Your task to perform on an android device: delete a single message in the gmail app Image 0: 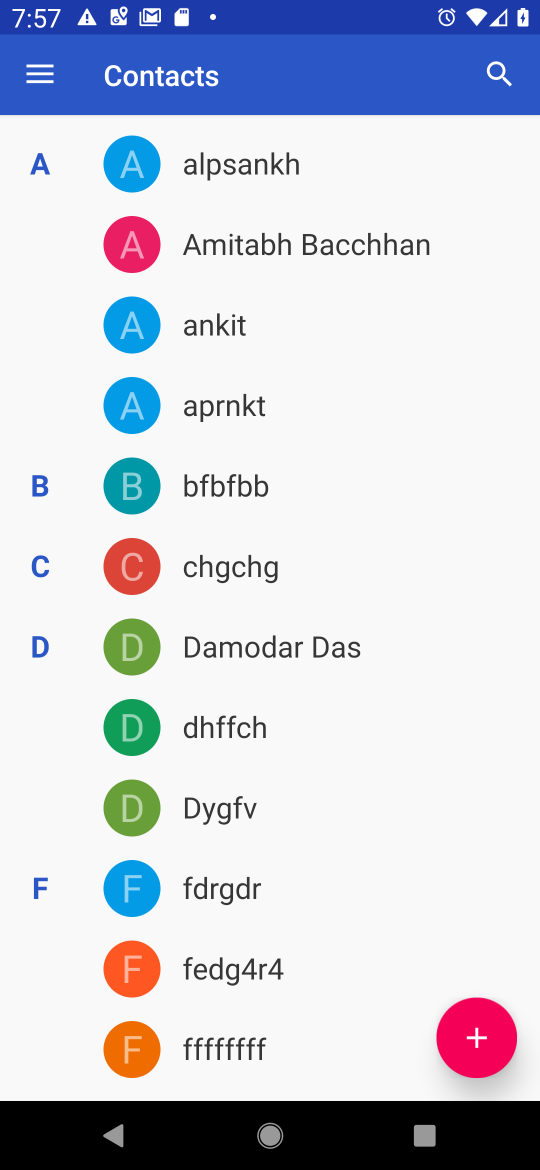
Step 0: press home button
Your task to perform on an android device: delete a single message in the gmail app Image 1: 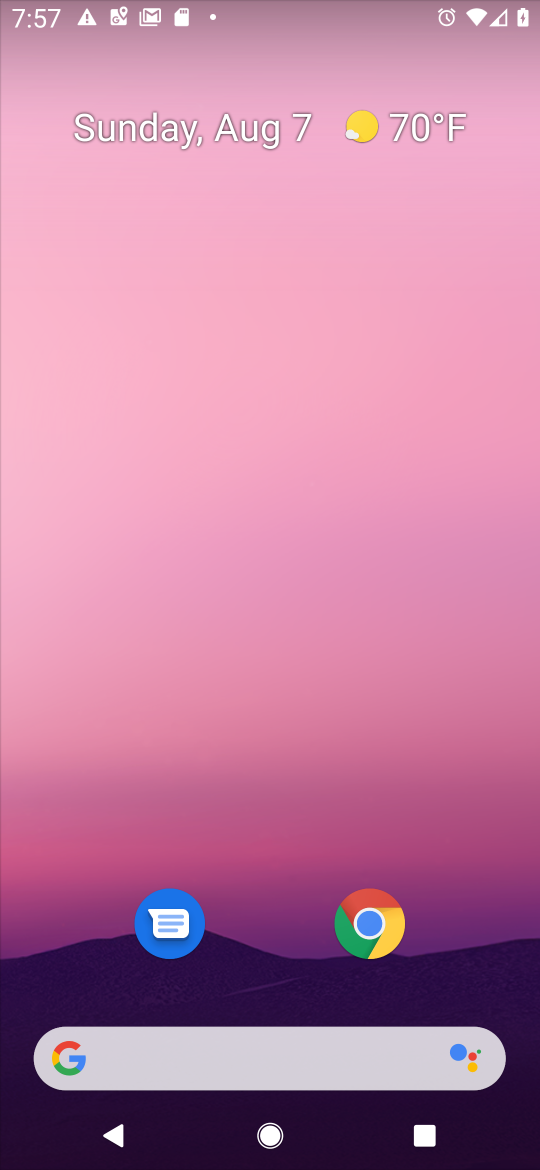
Step 1: drag from (453, 972) to (341, 29)
Your task to perform on an android device: delete a single message in the gmail app Image 2: 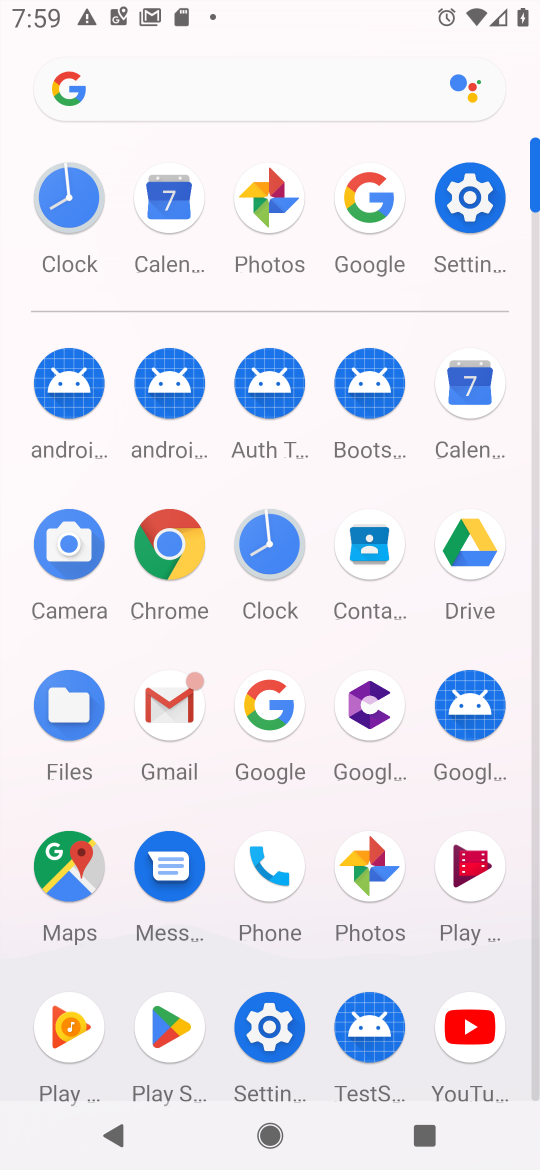
Step 2: click (155, 710)
Your task to perform on an android device: delete a single message in the gmail app Image 3: 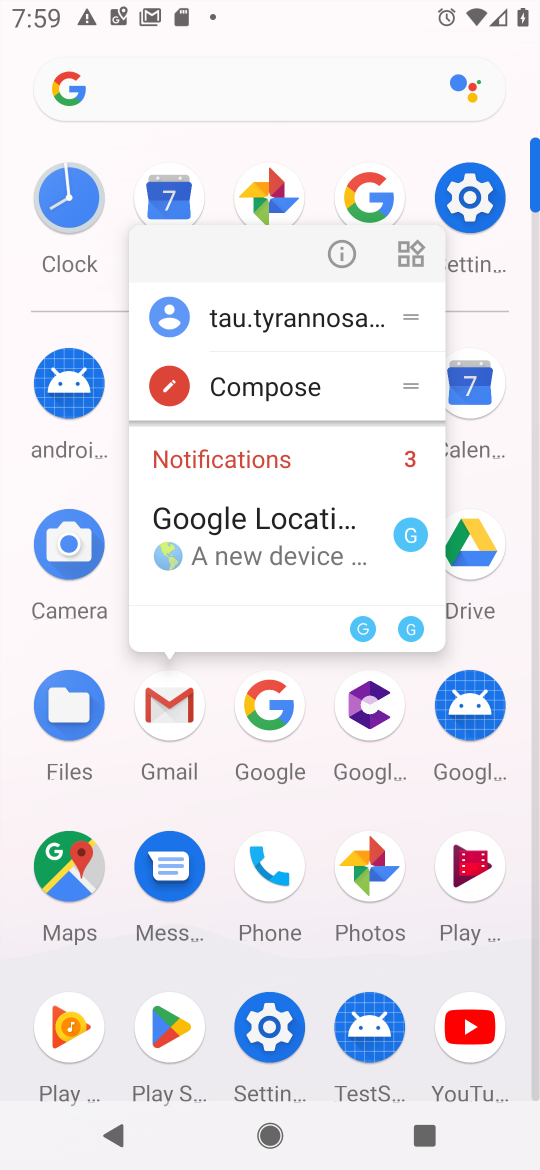
Step 3: click (155, 710)
Your task to perform on an android device: delete a single message in the gmail app Image 4: 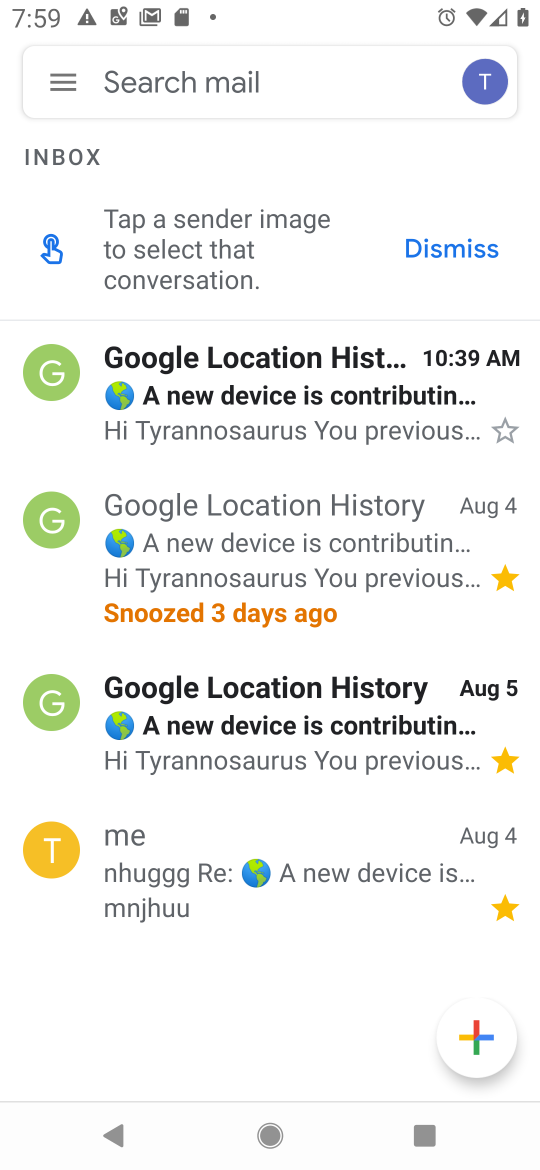
Step 4: click (338, 391)
Your task to perform on an android device: delete a single message in the gmail app Image 5: 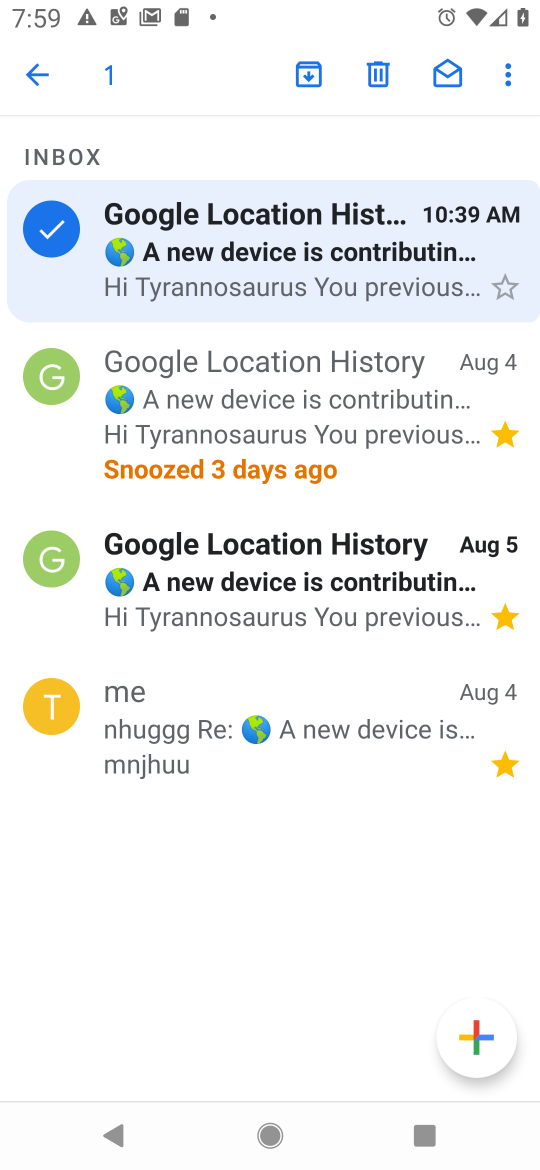
Step 5: click (376, 68)
Your task to perform on an android device: delete a single message in the gmail app Image 6: 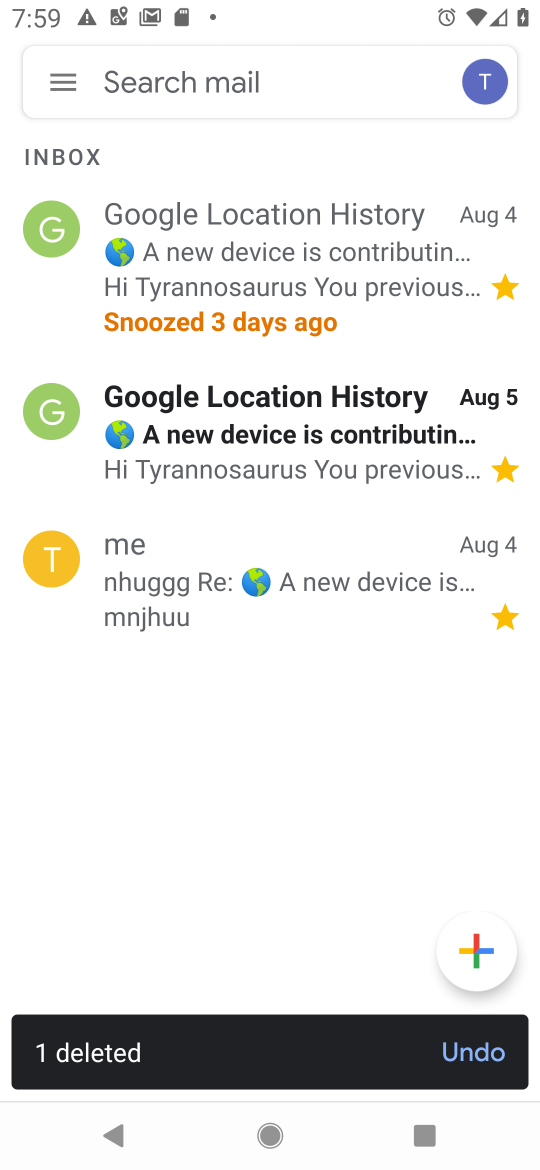
Step 6: task complete